Your task to perform on an android device: Open settings on Google Maps Image 0: 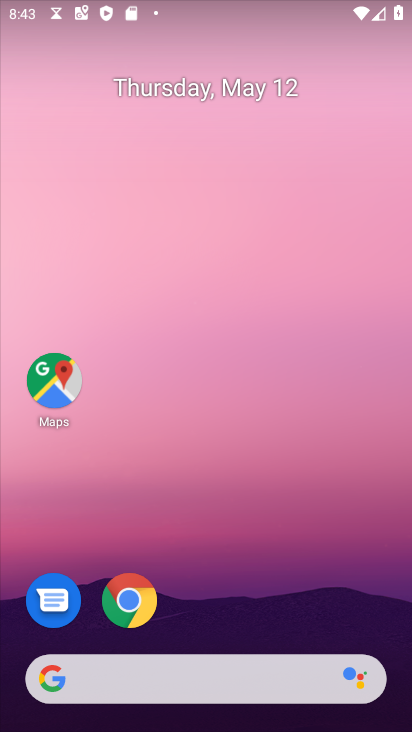
Step 0: click (63, 415)
Your task to perform on an android device: Open settings on Google Maps Image 1: 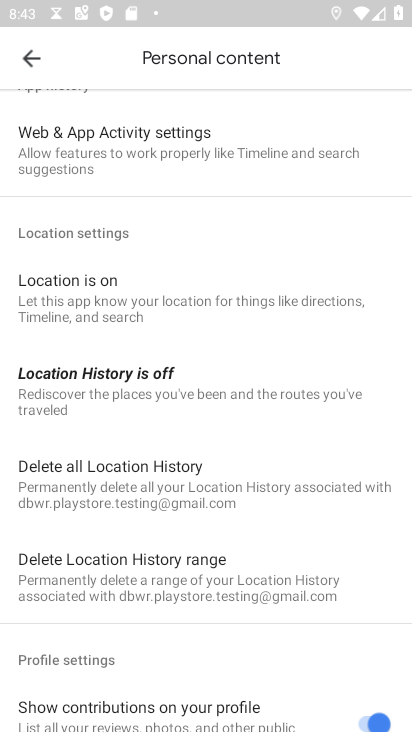
Step 1: drag from (123, 631) to (217, 343)
Your task to perform on an android device: Open settings on Google Maps Image 2: 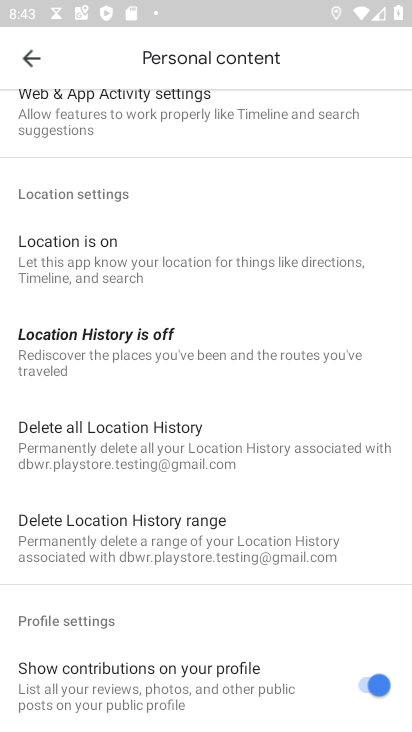
Step 2: click (16, 45)
Your task to perform on an android device: Open settings on Google Maps Image 3: 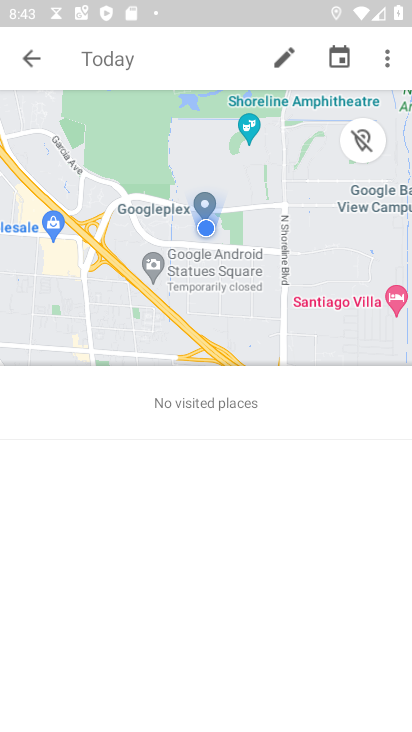
Step 3: click (32, 63)
Your task to perform on an android device: Open settings on Google Maps Image 4: 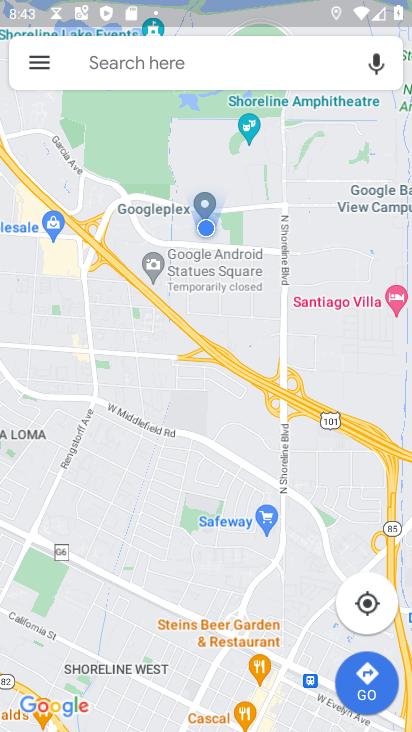
Step 4: click (32, 64)
Your task to perform on an android device: Open settings on Google Maps Image 5: 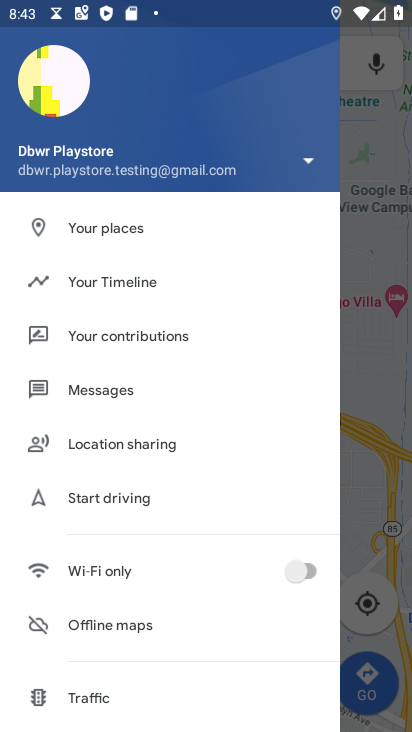
Step 5: drag from (120, 644) to (144, 134)
Your task to perform on an android device: Open settings on Google Maps Image 6: 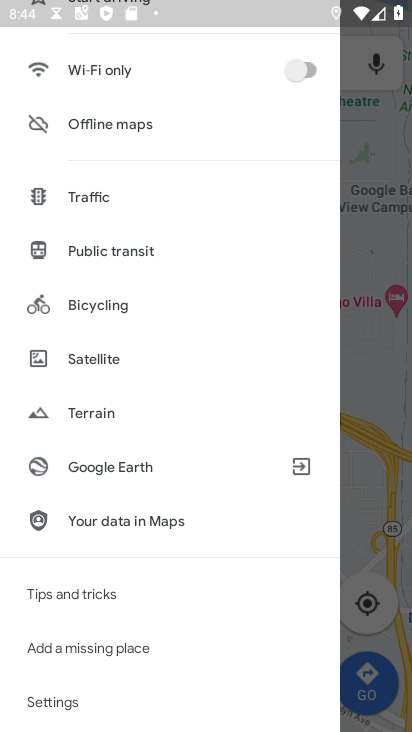
Step 6: drag from (148, 601) to (177, 241)
Your task to perform on an android device: Open settings on Google Maps Image 7: 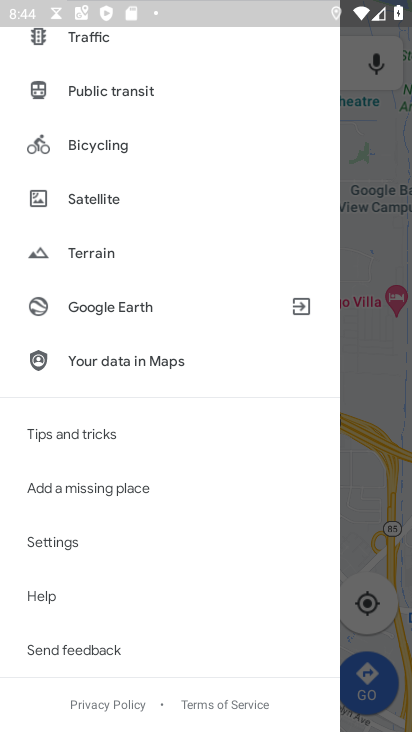
Step 7: click (55, 553)
Your task to perform on an android device: Open settings on Google Maps Image 8: 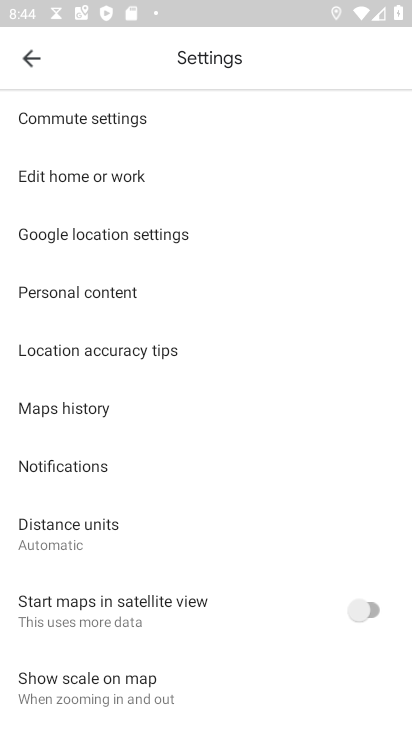
Step 8: task complete